Your task to perform on an android device: find which apps use the phone's location Image 0: 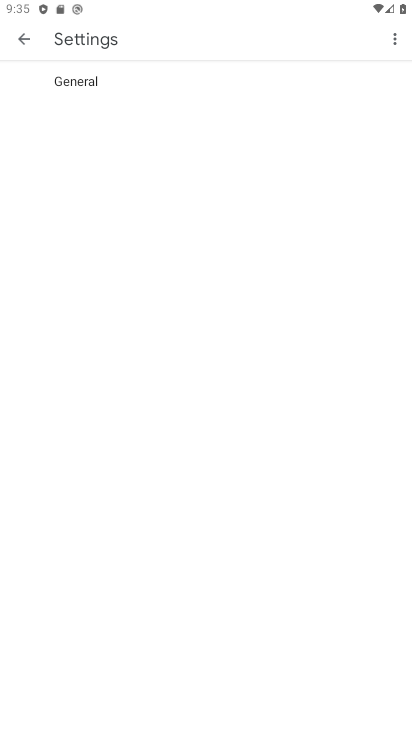
Step 0: press home button
Your task to perform on an android device: find which apps use the phone's location Image 1: 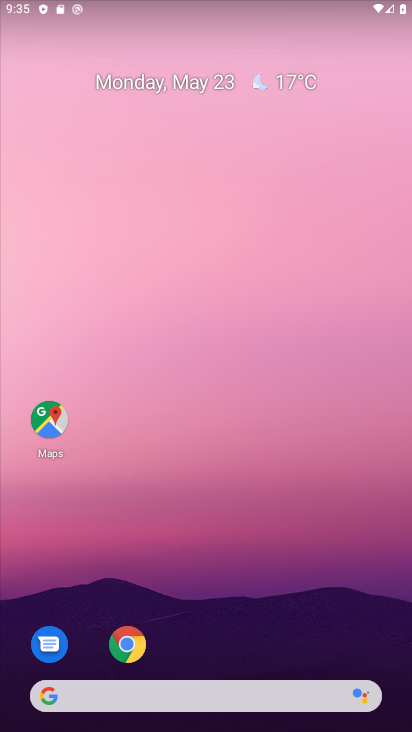
Step 1: drag from (197, 632) to (315, 251)
Your task to perform on an android device: find which apps use the phone's location Image 2: 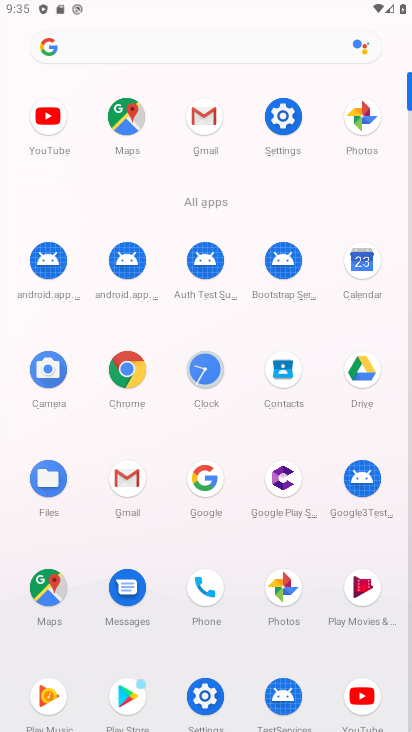
Step 2: click (282, 116)
Your task to perform on an android device: find which apps use the phone's location Image 3: 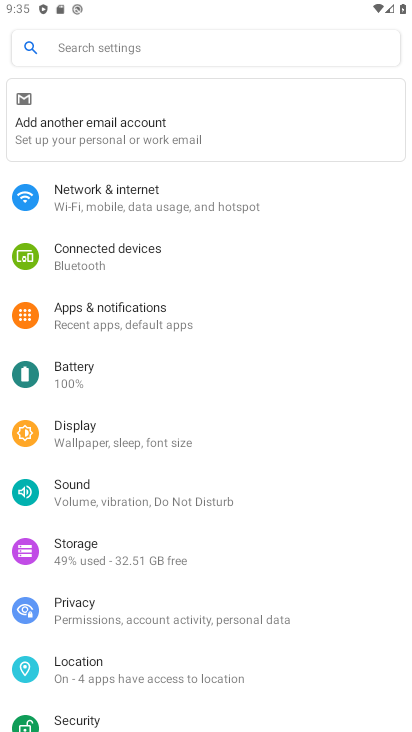
Step 3: click (130, 672)
Your task to perform on an android device: find which apps use the phone's location Image 4: 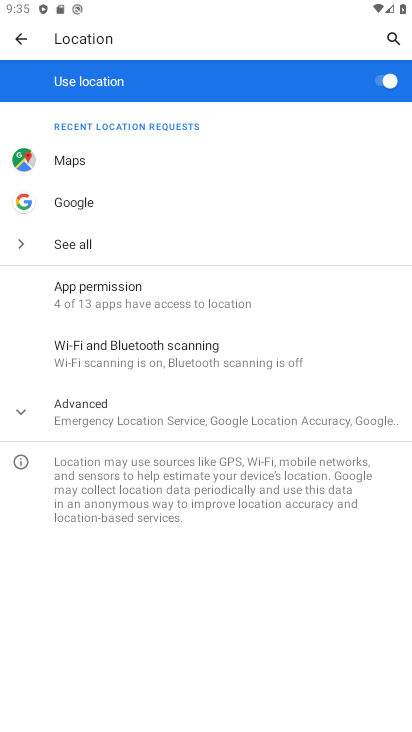
Step 4: click (34, 243)
Your task to perform on an android device: find which apps use the phone's location Image 5: 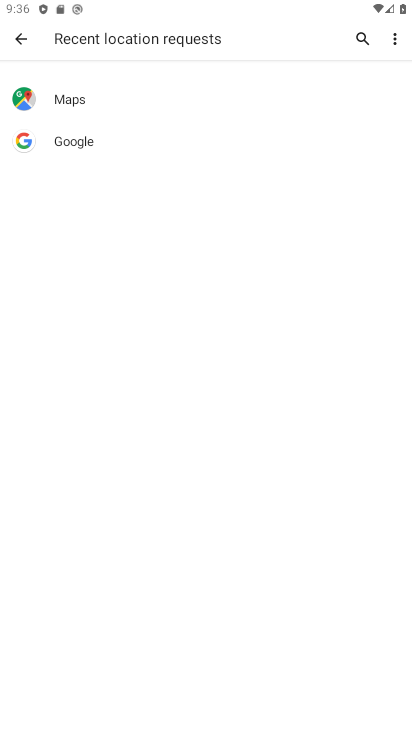
Step 5: task complete